Your task to perform on an android device: turn on translation in the chrome app Image 0: 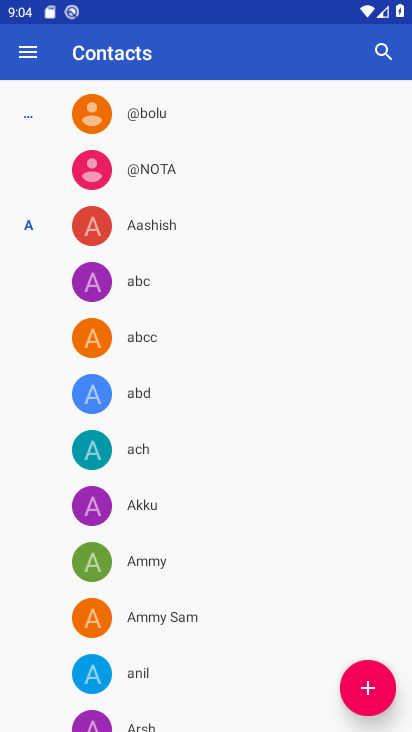
Step 0: press home button
Your task to perform on an android device: turn on translation in the chrome app Image 1: 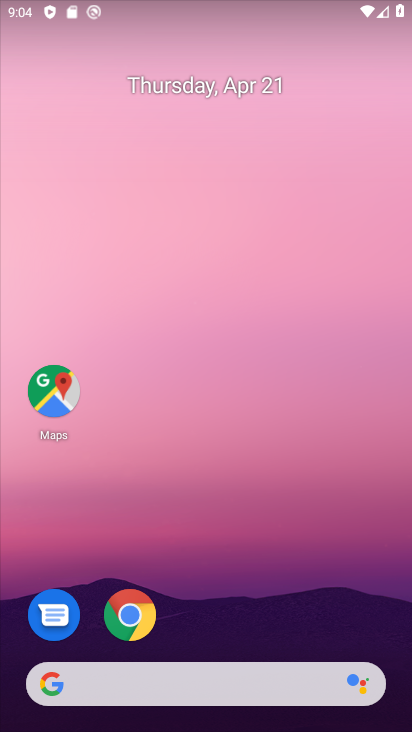
Step 1: click (124, 615)
Your task to perform on an android device: turn on translation in the chrome app Image 2: 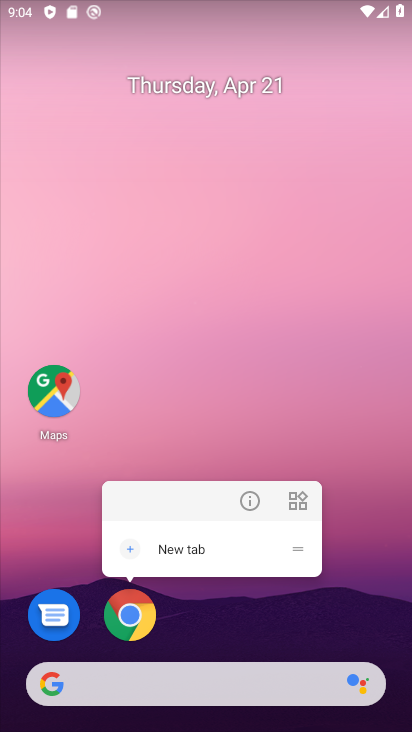
Step 2: click (251, 495)
Your task to perform on an android device: turn on translation in the chrome app Image 3: 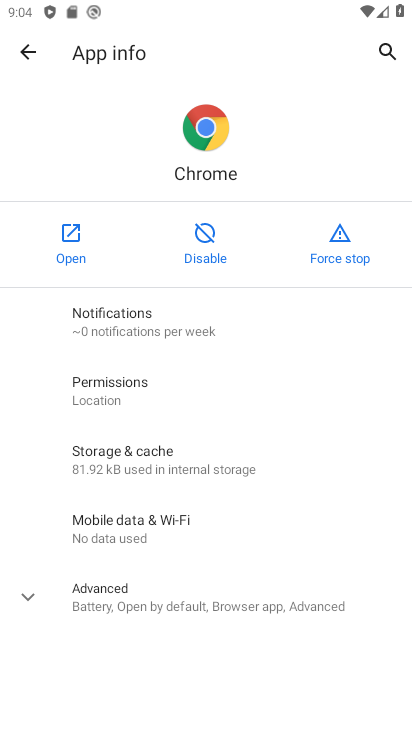
Step 3: click (75, 231)
Your task to perform on an android device: turn on translation in the chrome app Image 4: 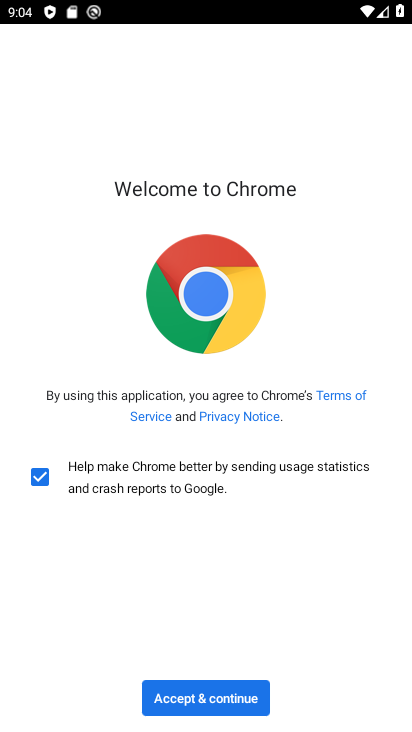
Step 4: click (205, 705)
Your task to perform on an android device: turn on translation in the chrome app Image 5: 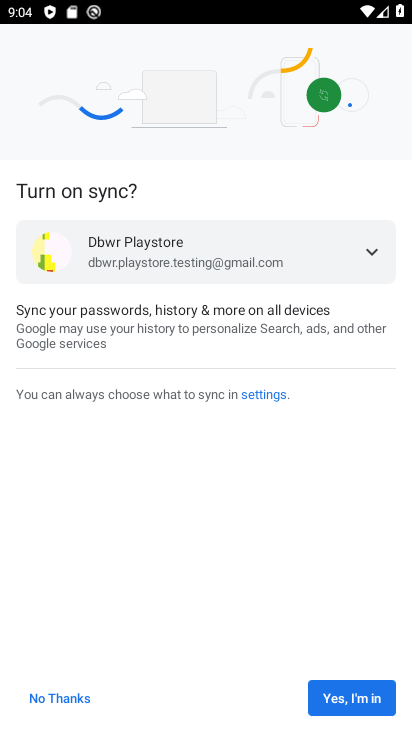
Step 5: click (62, 704)
Your task to perform on an android device: turn on translation in the chrome app Image 6: 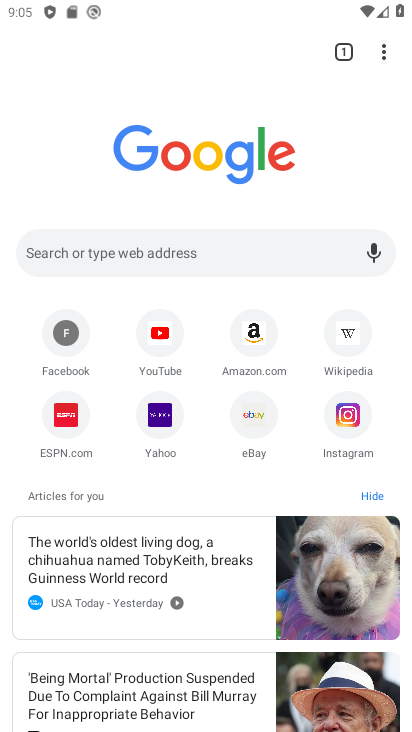
Step 6: click (384, 54)
Your task to perform on an android device: turn on translation in the chrome app Image 7: 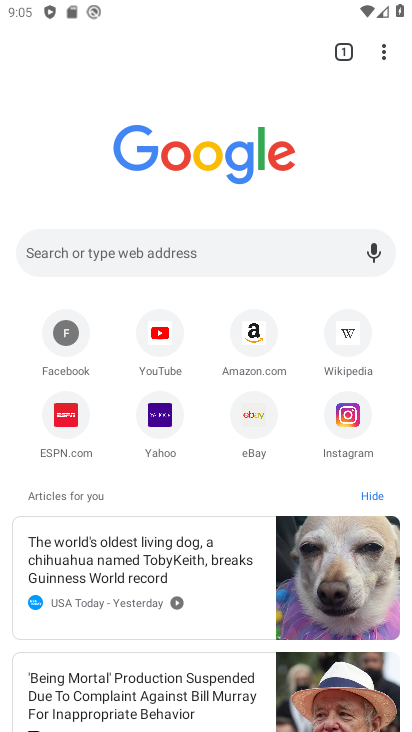
Step 7: click (384, 54)
Your task to perform on an android device: turn on translation in the chrome app Image 8: 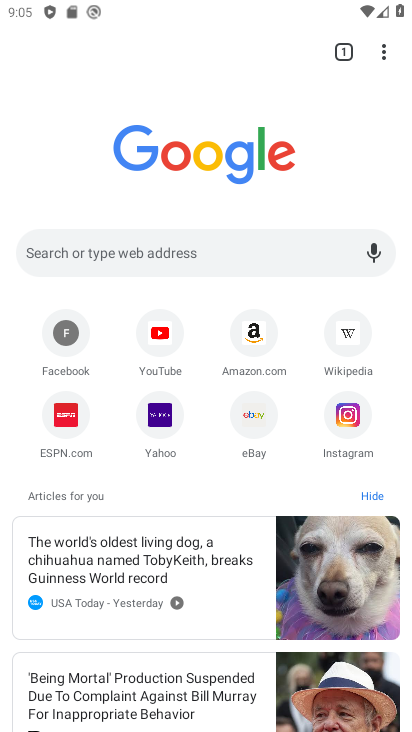
Step 8: click (382, 48)
Your task to perform on an android device: turn on translation in the chrome app Image 9: 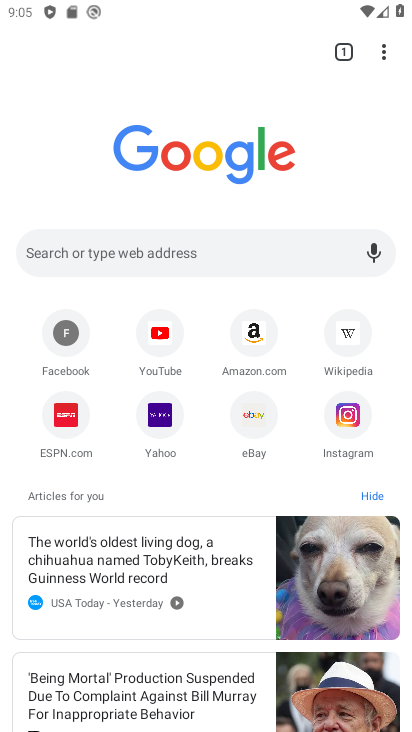
Step 9: click (382, 50)
Your task to perform on an android device: turn on translation in the chrome app Image 10: 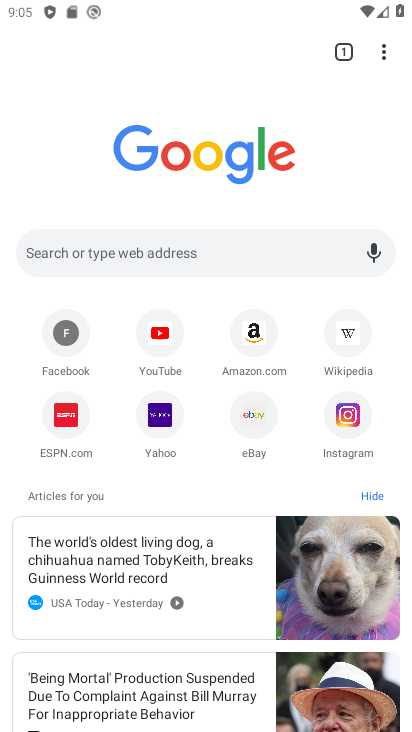
Step 10: click (391, 55)
Your task to perform on an android device: turn on translation in the chrome app Image 11: 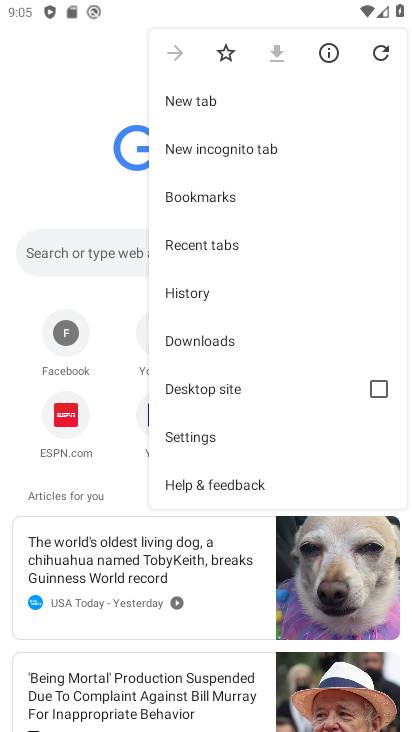
Step 11: click (217, 435)
Your task to perform on an android device: turn on translation in the chrome app Image 12: 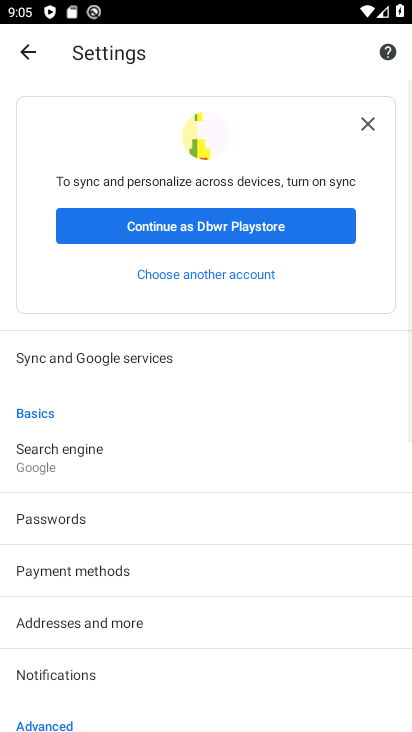
Step 12: drag from (165, 643) to (273, 342)
Your task to perform on an android device: turn on translation in the chrome app Image 13: 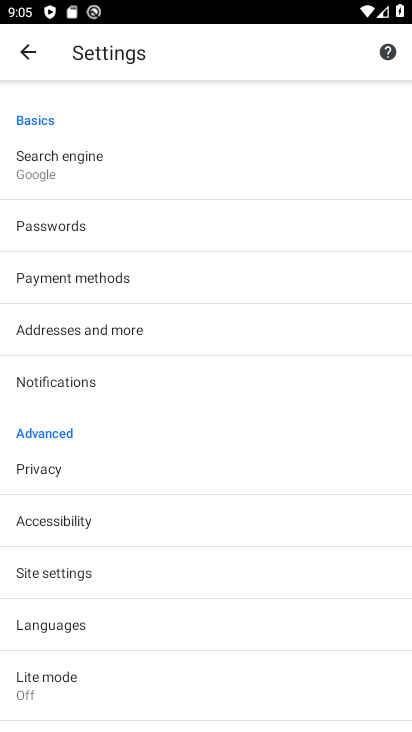
Step 13: click (112, 621)
Your task to perform on an android device: turn on translation in the chrome app Image 14: 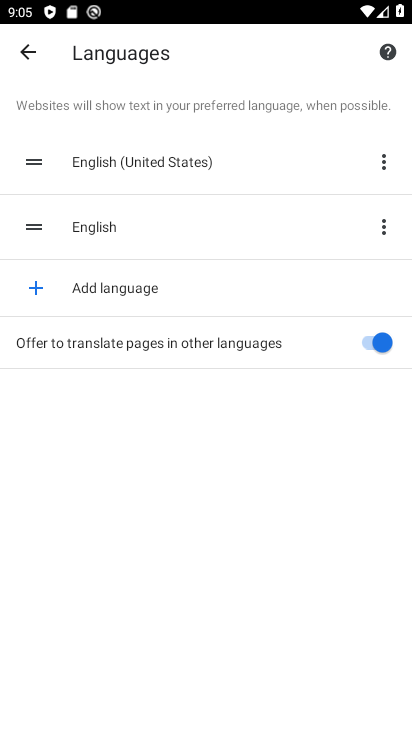
Step 14: task complete